Your task to perform on an android device: View the shopping cart on bestbuy.com. Image 0: 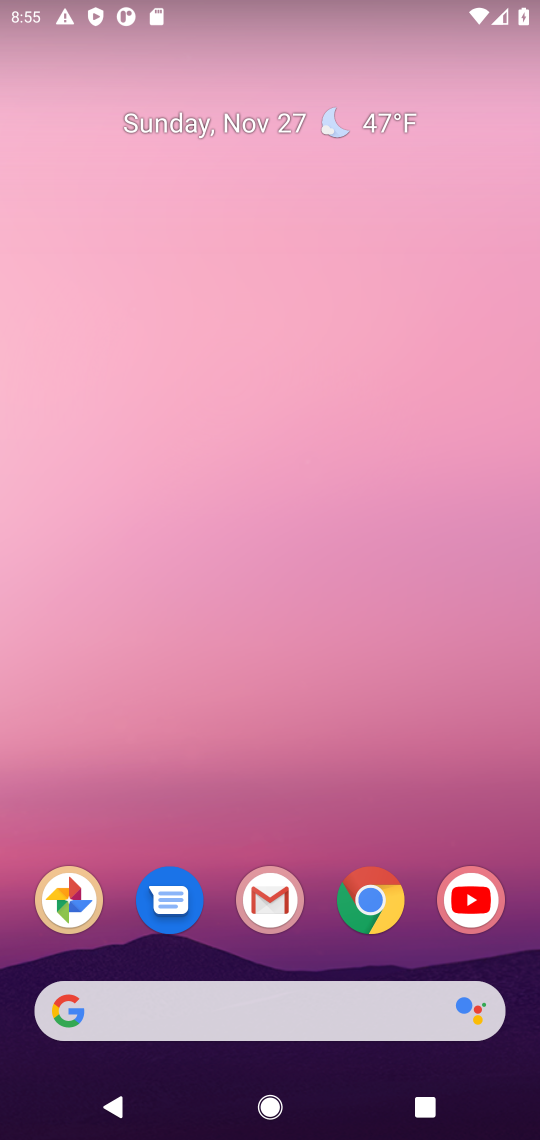
Step 0: click (376, 911)
Your task to perform on an android device: View the shopping cart on bestbuy.com. Image 1: 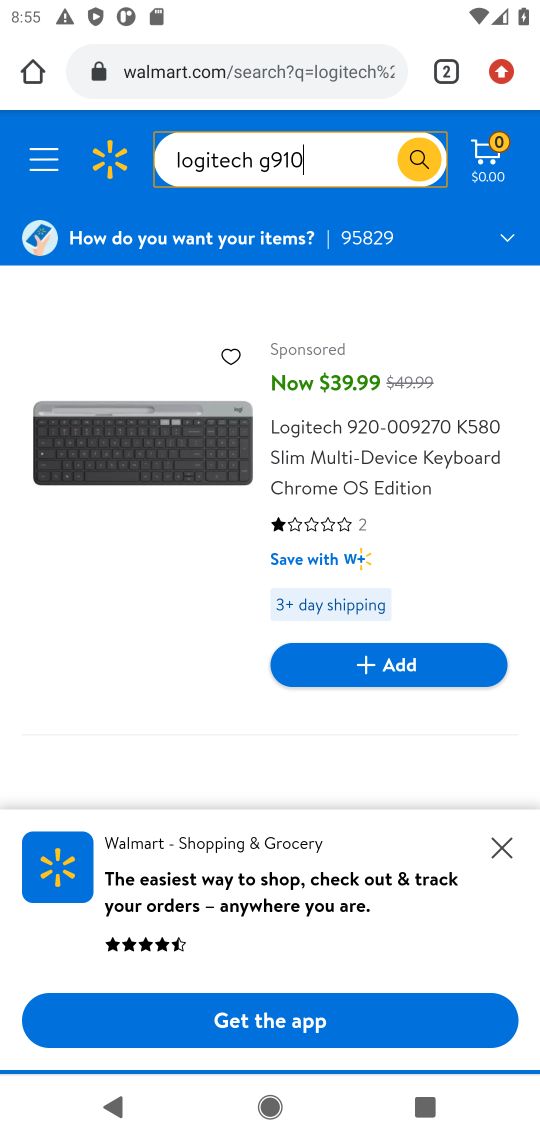
Step 1: click (248, 73)
Your task to perform on an android device: View the shopping cart on bestbuy.com. Image 2: 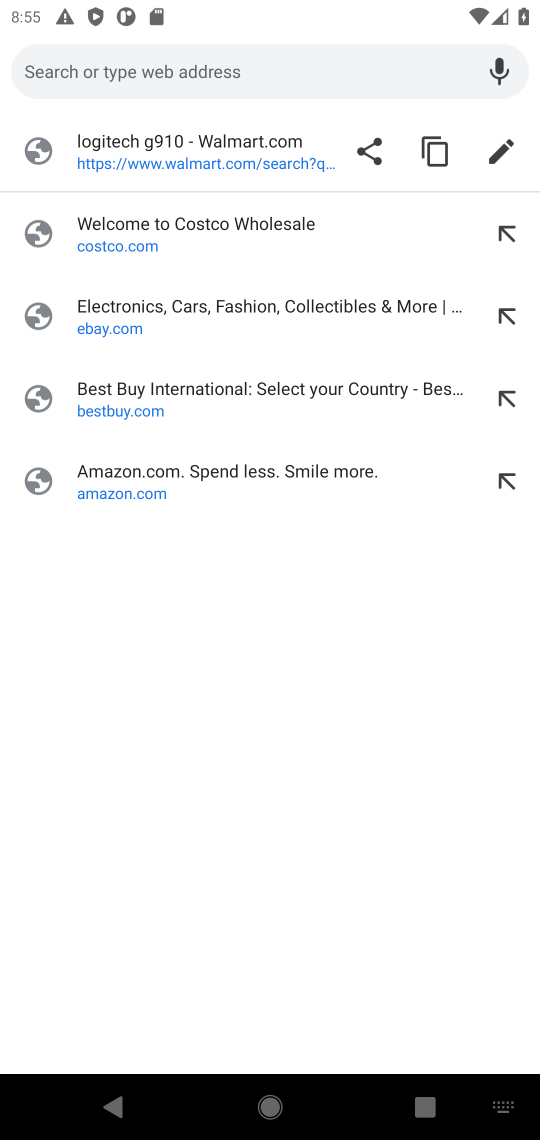
Step 2: click (103, 400)
Your task to perform on an android device: View the shopping cart on bestbuy.com. Image 3: 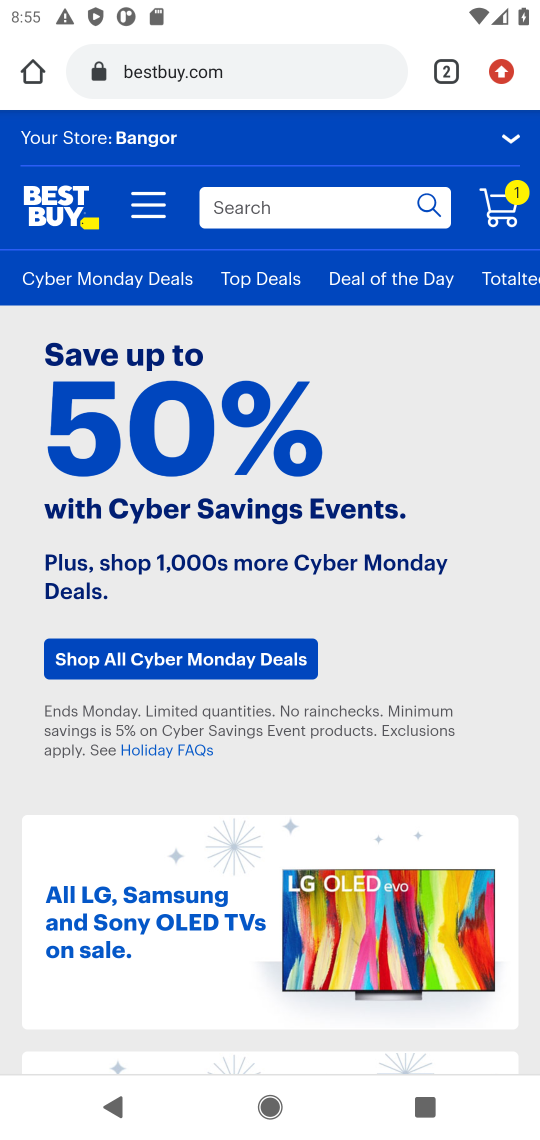
Step 3: click (508, 212)
Your task to perform on an android device: View the shopping cart on bestbuy.com. Image 4: 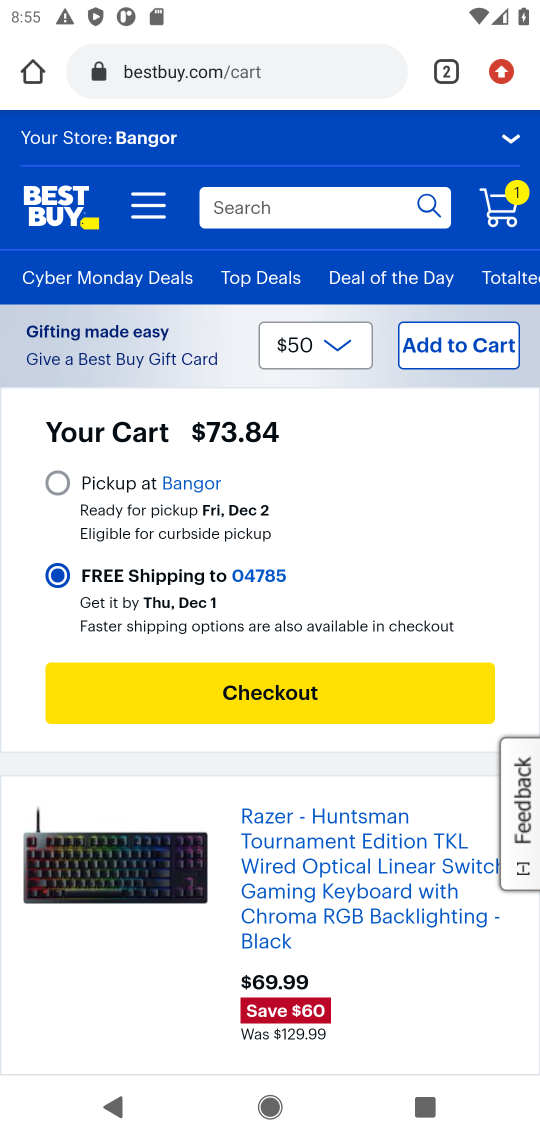
Step 4: task complete